Your task to perform on an android device: turn vacation reply on in the gmail app Image 0: 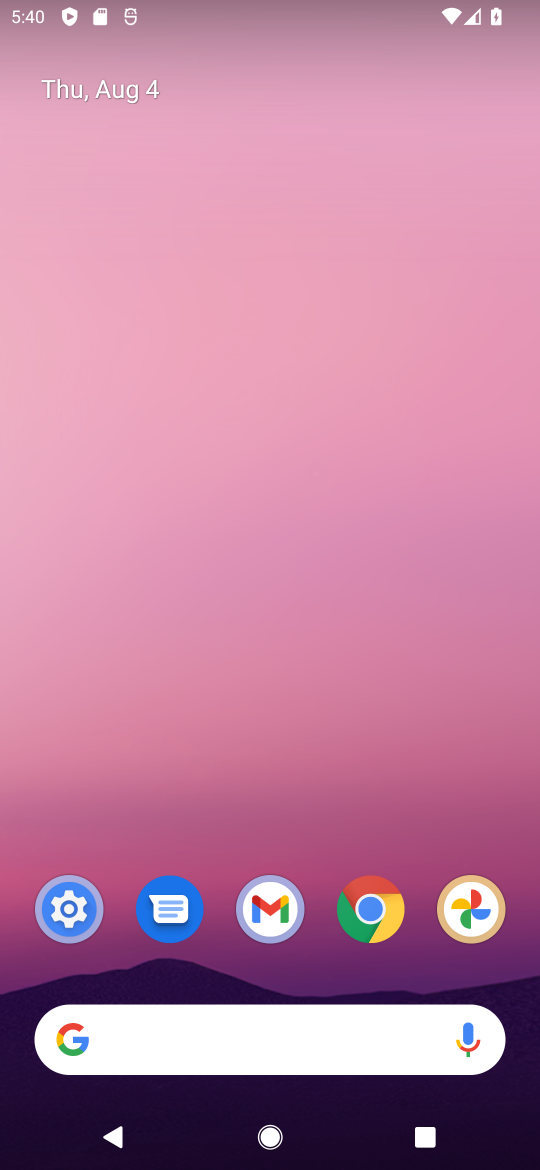
Step 0: drag from (183, 919) to (84, 0)
Your task to perform on an android device: turn vacation reply on in the gmail app Image 1: 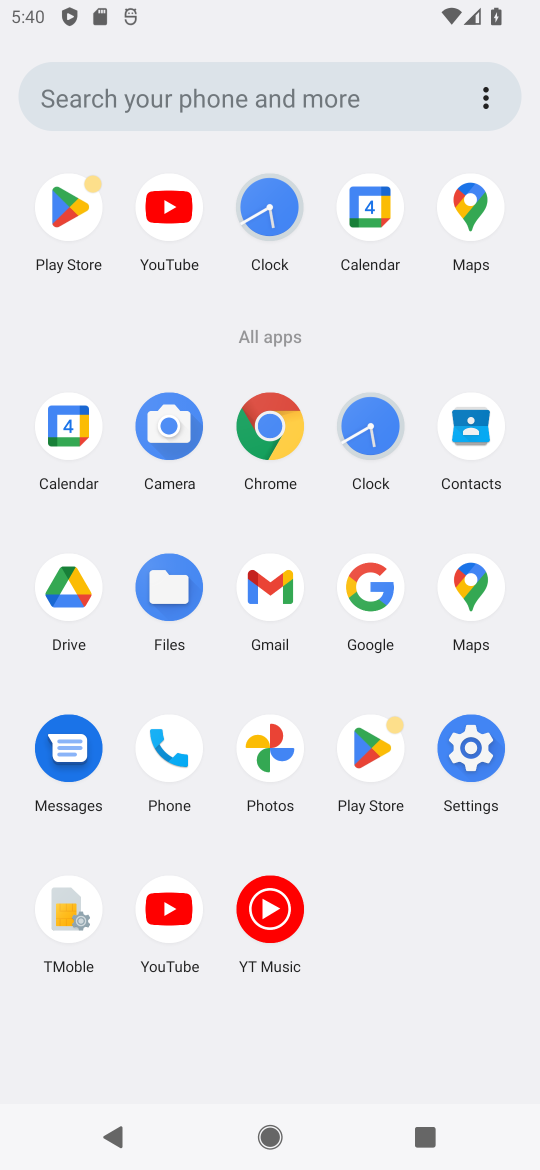
Step 1: click (259, 598)
Your task to perform on an android device: turn vacation reply on in the gmail app Image 2: 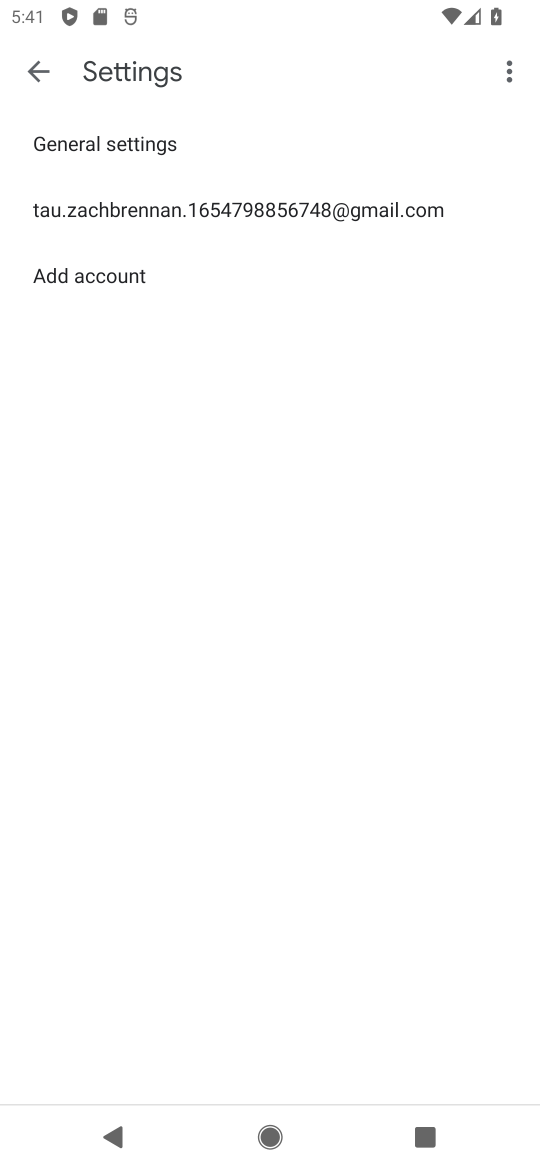
Step 2: click (150, 204)
Your task to perform on an android device: turn vacation reply on in the gmail app Image 3: 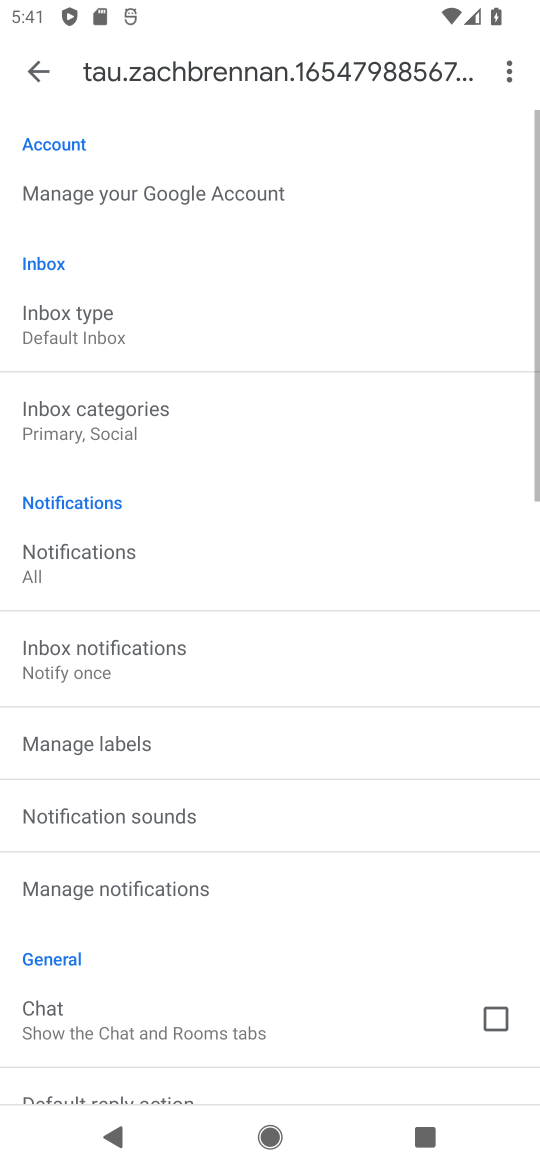
Step 3: drag from (154, 960) to (158, 216)
Your task to perform on an android device: turn vacation reply on in the gmail app Image 4: 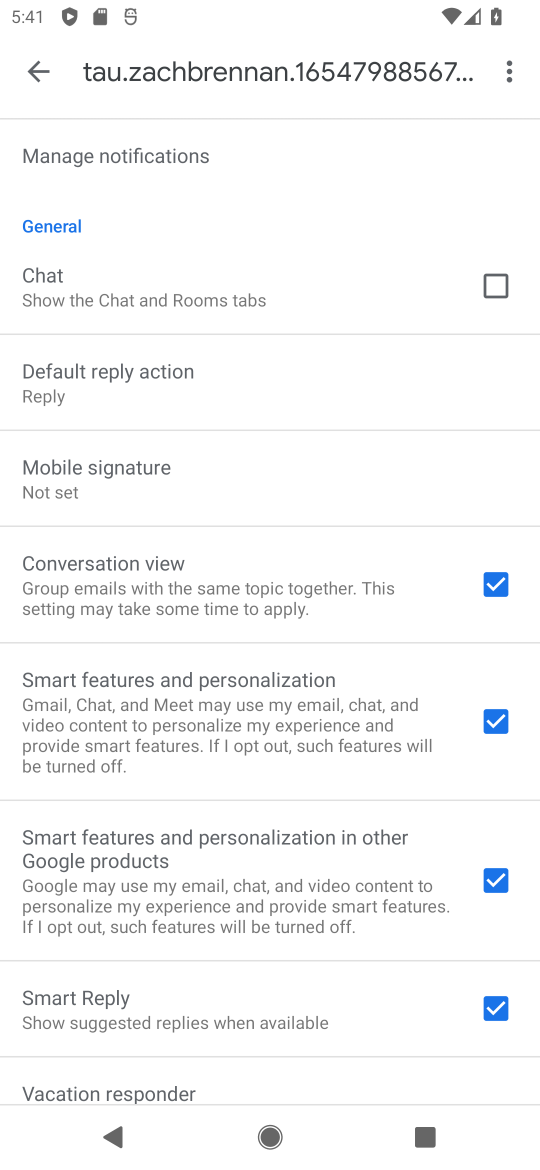
Step 4: drag from (133, 1070) to (159, 578)
Your task to perform on an android device: turn vacation reply on in the gmail app Image 5: 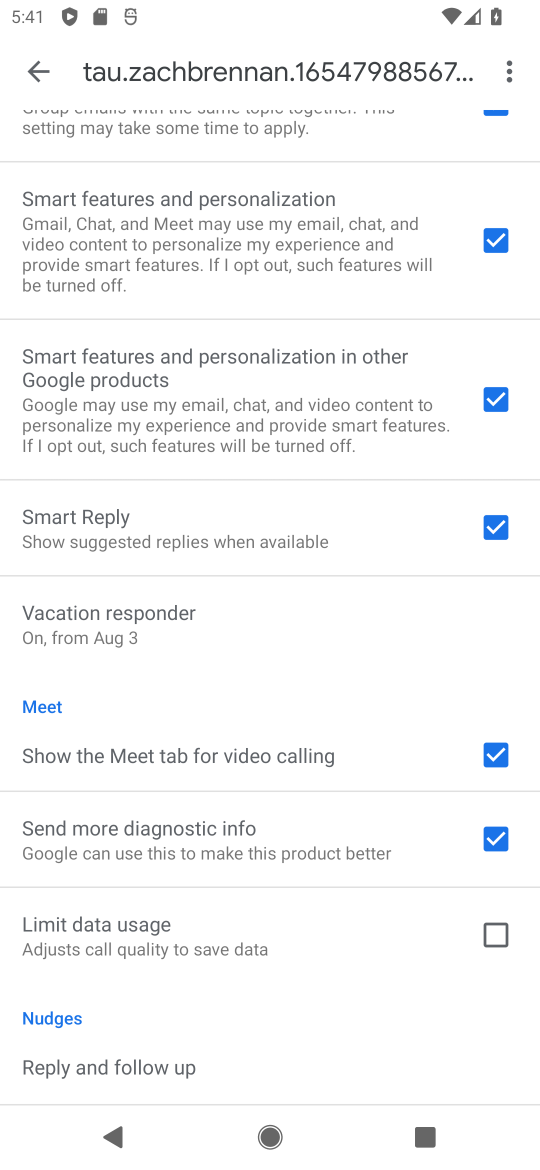
Step 5: click (162, 634)
Your task to perform on an android device: turn vacation reply on in the gmail app Image 6: 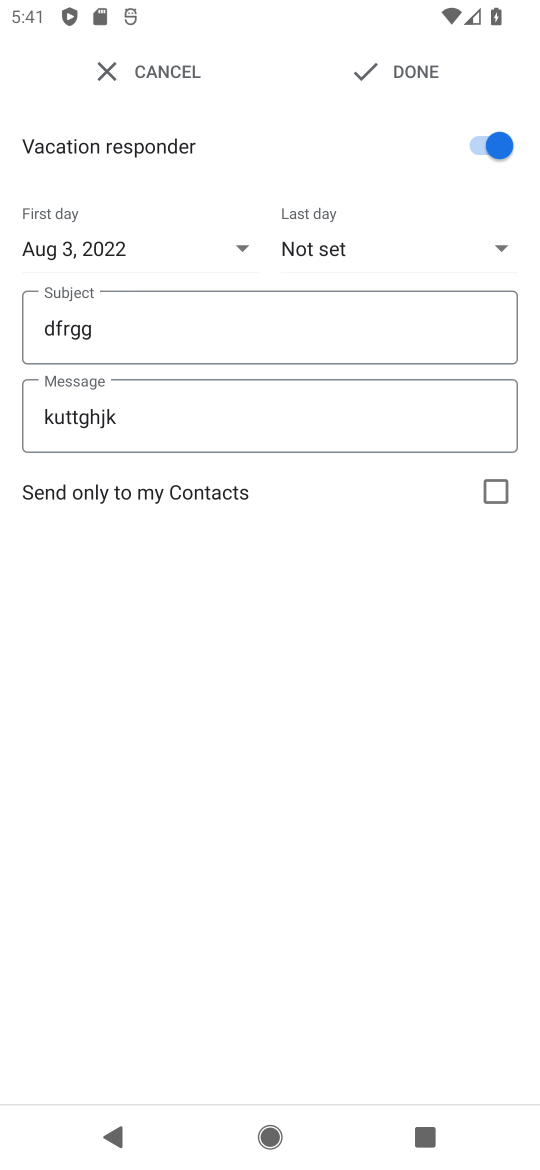
Step 6: task complete